Your task to perform on an android device: Open the calendar and show me this week's events? Image 0: 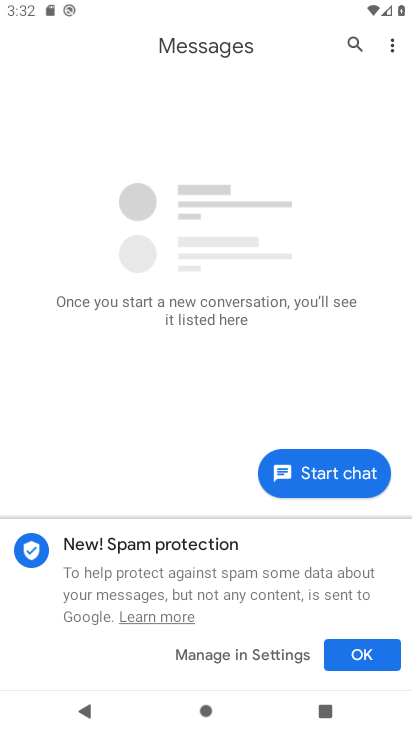
Step 0: press home button
Your task to perform on an android device: Open the calendar and show me this week's events? Image 1: 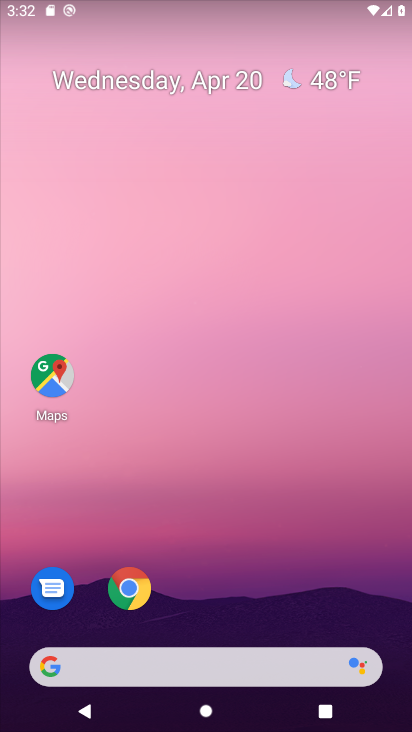
Step 1: drag from (320, 608) to (297, 151)
Your task to perform on an android device: Open the calendar and show me this week's events? Image 2: 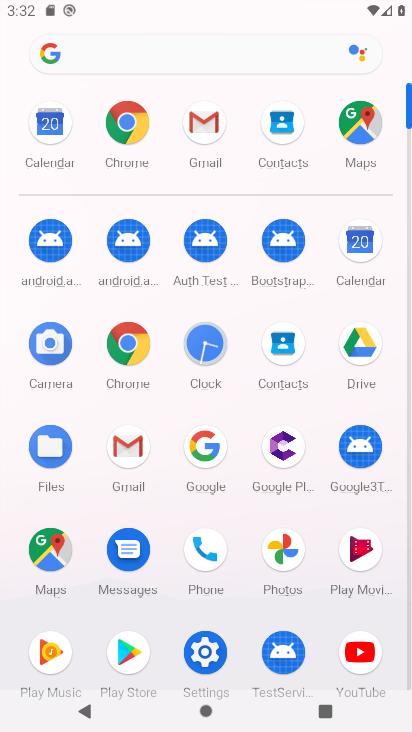
Step 2: click (366, 233)
Your task to perform on an android device: Open the calendar and show me this week's events? Image 3: 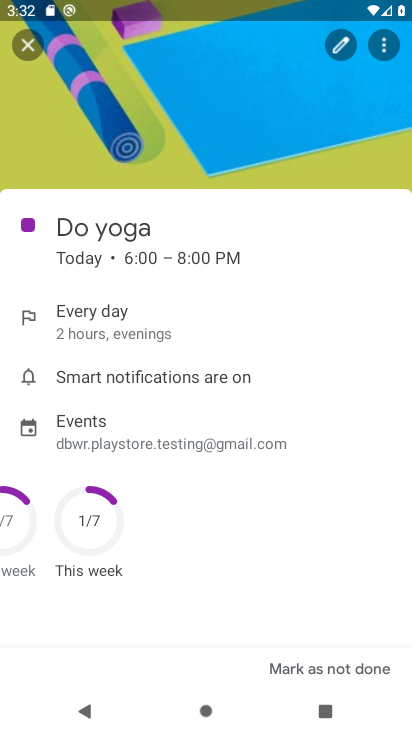
Step 3: task complete